Your task to perform on an android device: check android version Image 0: 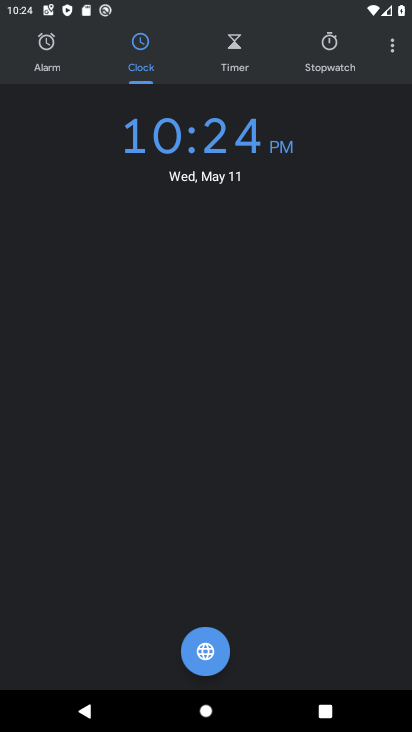
Step 0: press home button
Your task to perform on an android device: check android version Image 1: 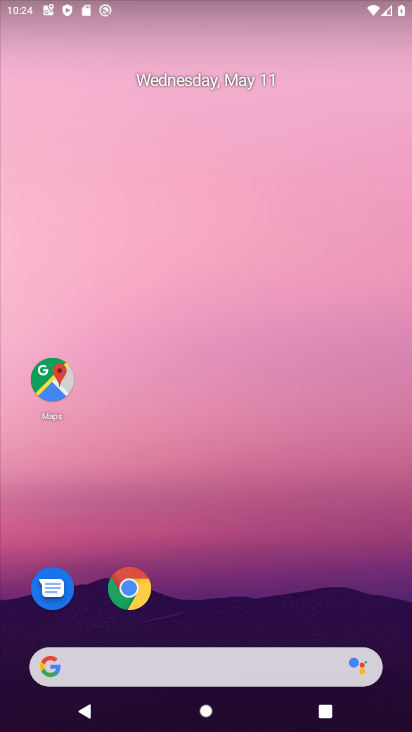
Step 1: drag from (215, 590) to (274, 46)
Your task to perform on an android device: check android version Image 2: 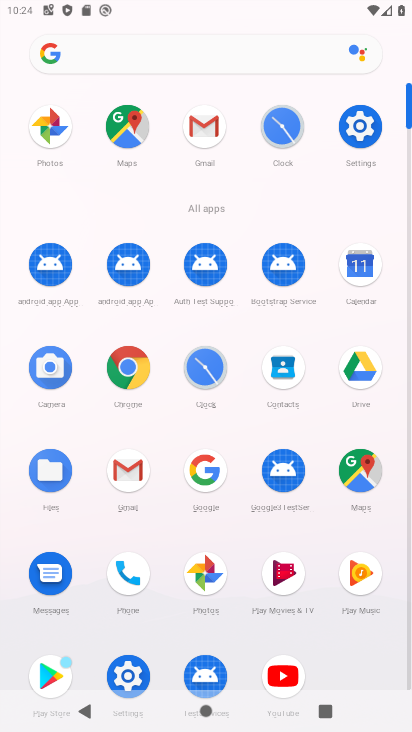
Step 2: click (373, 121)
Your task to perform on an android device: check android version Image 3: 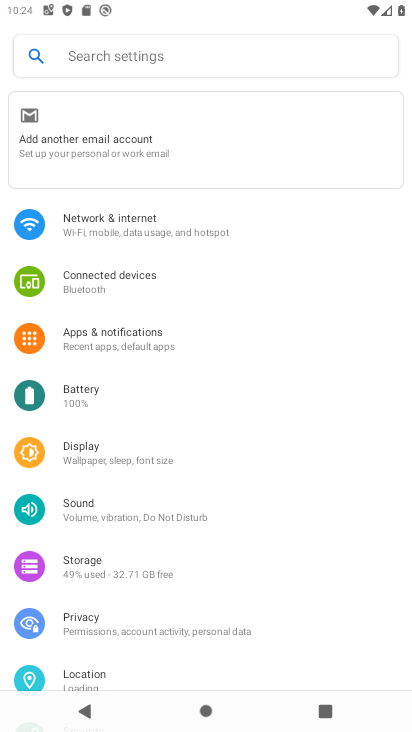
Step 3: drag from (212, 612) to (252, 123)
Your task to perform on an android device: check android version Image 4: 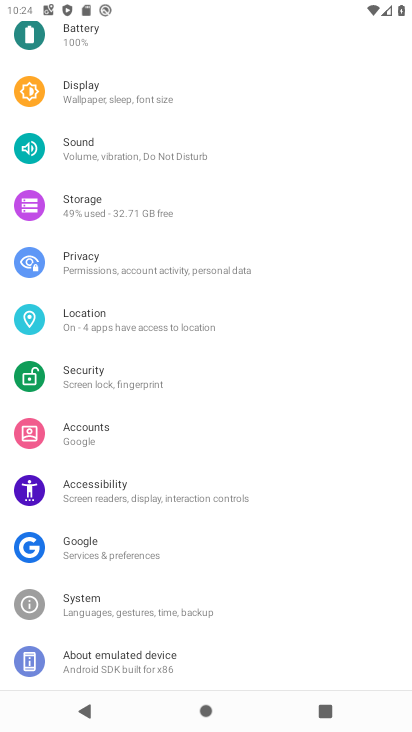
Step 4: click (137, 658)
Your task to perform on an android device: check android version Image 5: 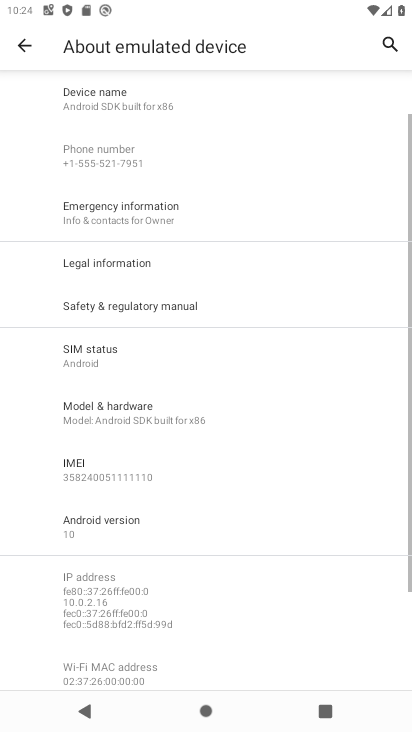
Step 5: click (103, 534)
Your task to perform on an android device: check android version Image 6: 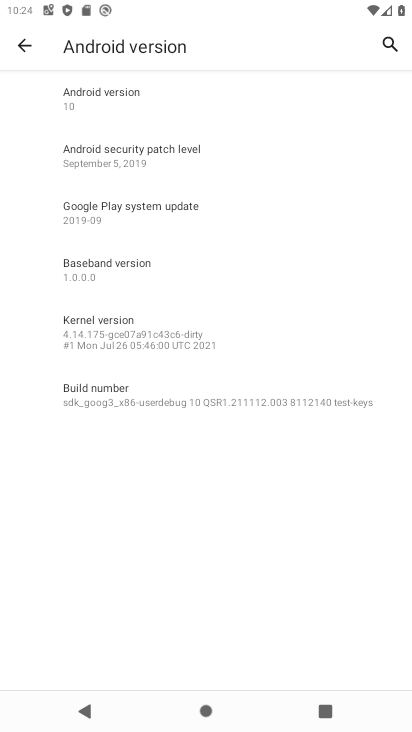
Step 6: task complete